Your task to perform on an android device: move a message to another label in the gmail app Image 0: 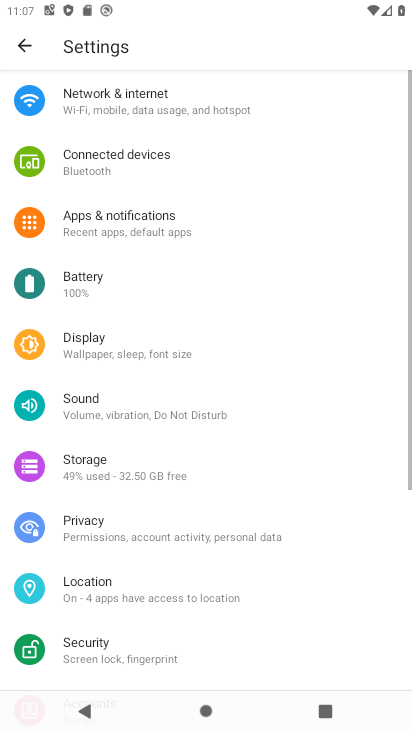
Step 0: press home button
Your task to perform on an android device: move a message to another label in the gmail app Image 1: 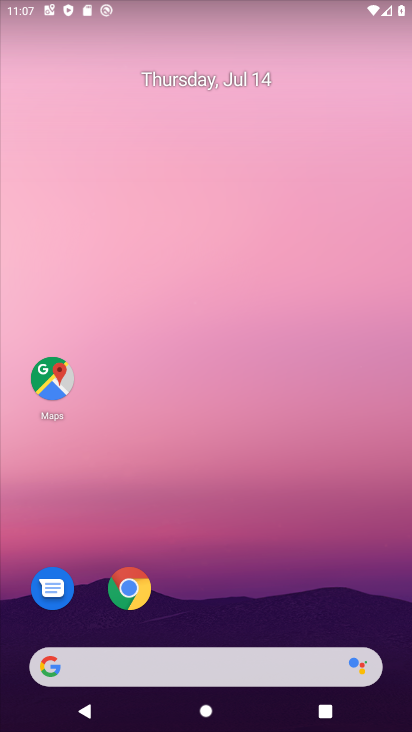
Step 1: drag from (372, 612) to (368, 70)
Your task to perform on an android device: move a message to another label in the gmail app Image 2: 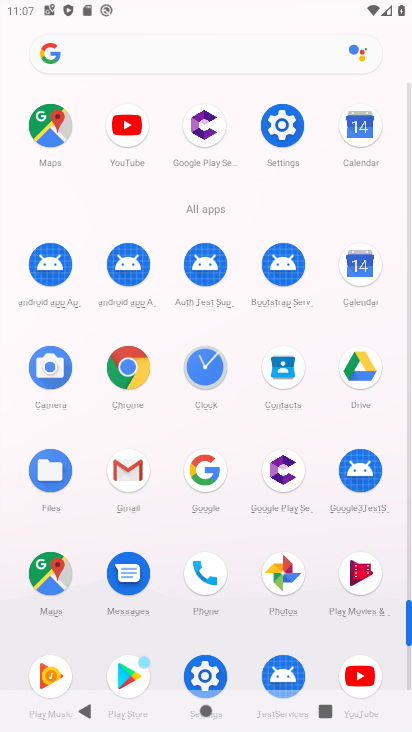
Step 2: click (130, 473)
Your task to perform on an android device: move a message to another label in the gmail app Image 3: 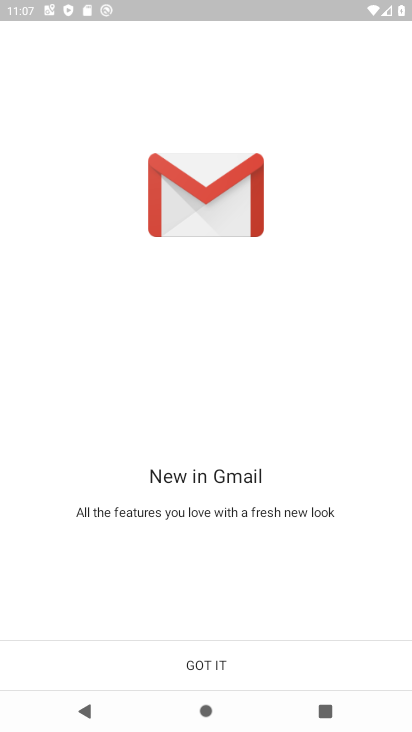
Step 3: click (213, 662)
Your task to perform on an android device: move a message to another label in the gmail app Image 4: 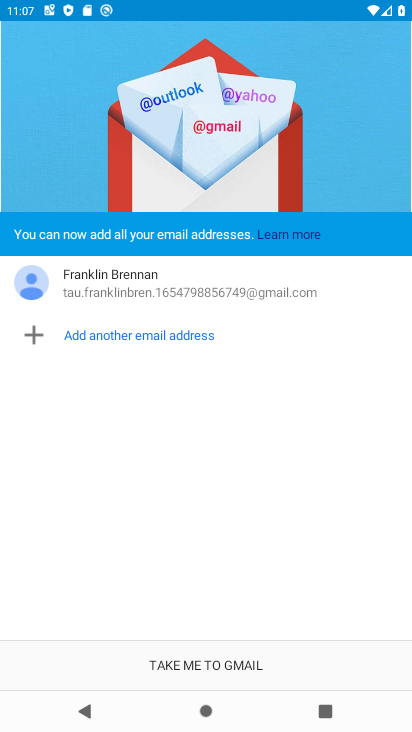
Step 4: click (213, 662)
Your task to perform on an android device: move a message to another label in the gmail app Image 5: 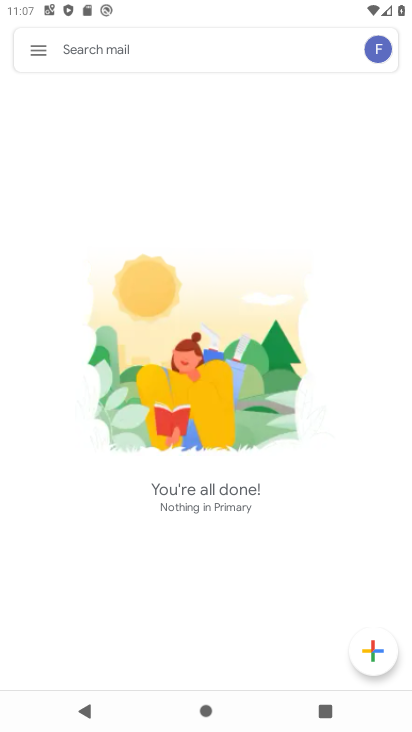
Step 5: click (30, 49)
Your task to perform on an android device: move a message to another label in the gmail app Image 6: 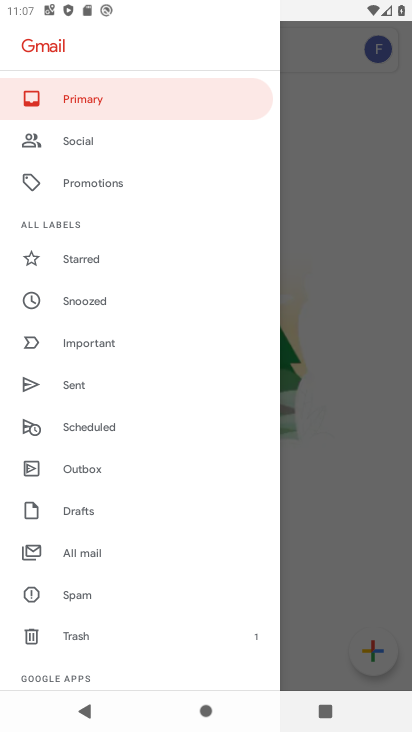
Step 6: drag from (139, 616) to (156, 341)
Your task to perform on an android device: move a message to another label in the gmail app Image 7: 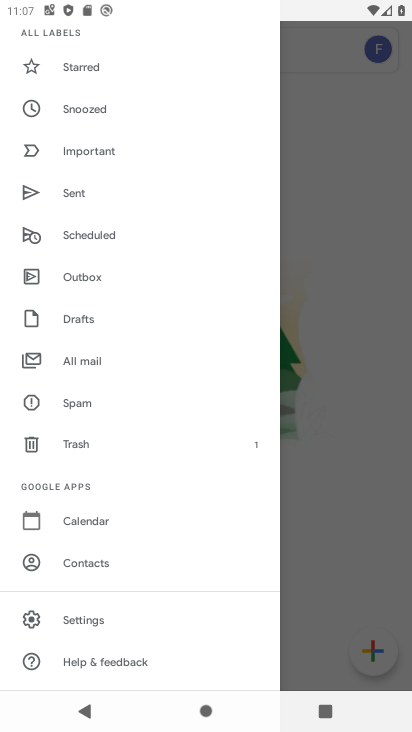
Step 7: click (82, 355)
Your task to perform on an android device: move a message to another label in the gmail app Image 8: 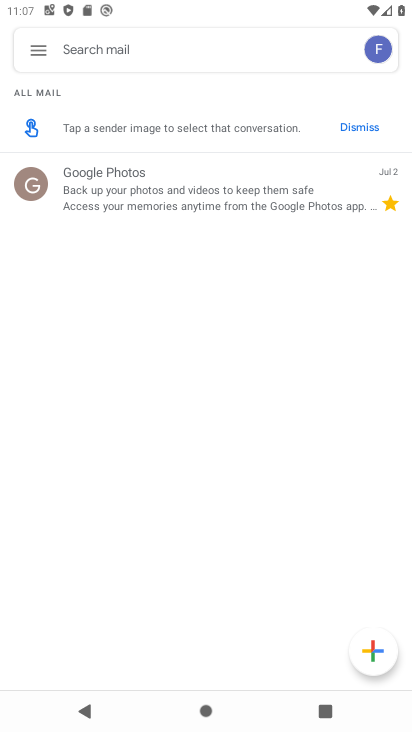
Step 8: click (144, 172)
Your task to perform on an android device: move a message to another label in the gmail app Image 9: 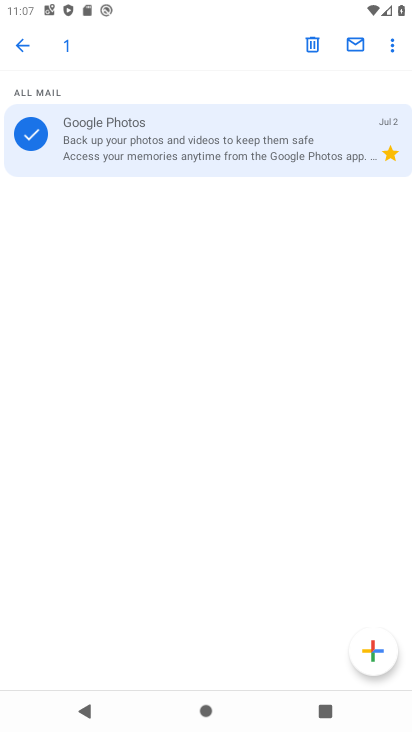
Step 9: click (389, 45)
Your task to perform on an android device: move a message to another label in the gmail app Image 10: 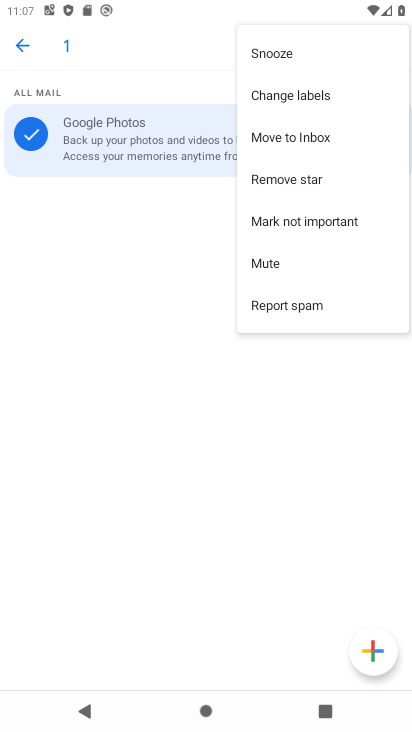
Step 10: click (287, 133)
Your task to perform on an android device: move a message to another label in the gmail app Image 11: 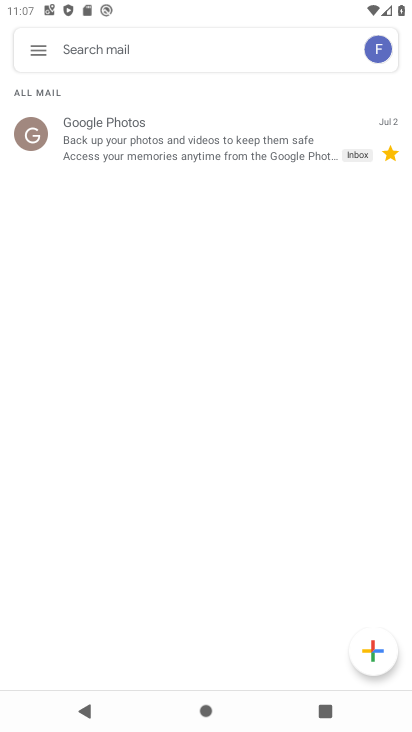
Step 11: task complete